Your task to perform on an android device: check data usage Image 0: 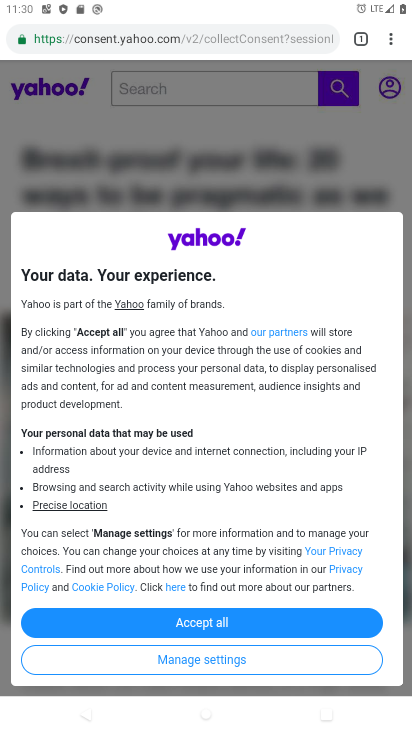
Step 0: press home button
Your task to perform on an android device: check data usage Image 1: 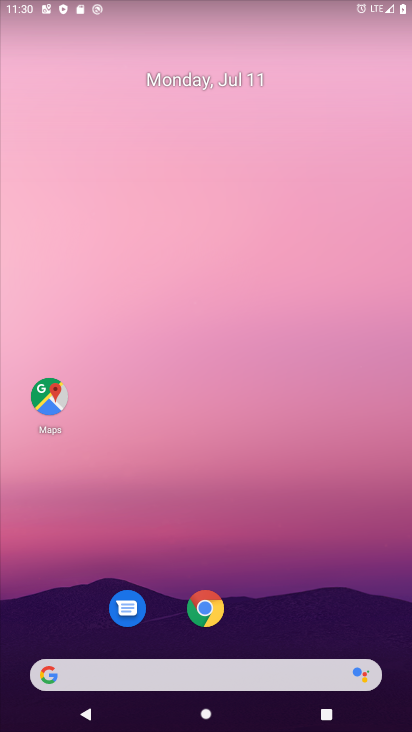
Step 1: click (115, 323)
Your task to perform on an android device: check data usage Image 2: 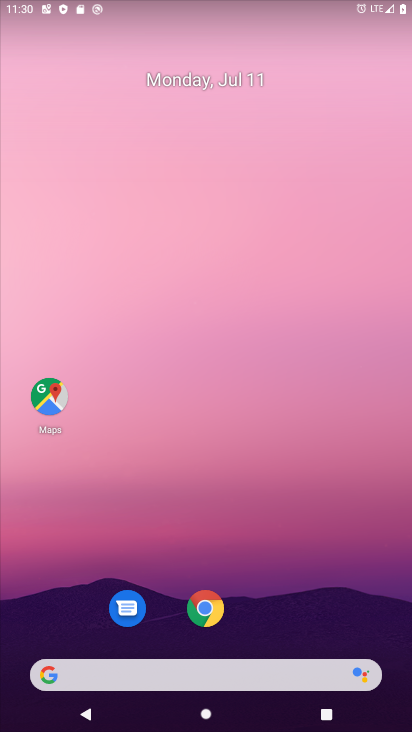
Step 2: drag from (36, 709) to (59, 207)
Your task to perform on an android device: check data usage Image 3: 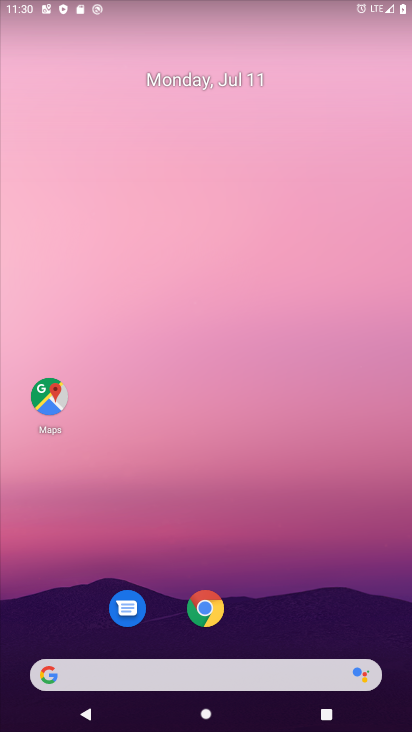
Step 3: drag from (42, 726) to (321, 4)
Your task to perform on an android device: check data usage Image 4: 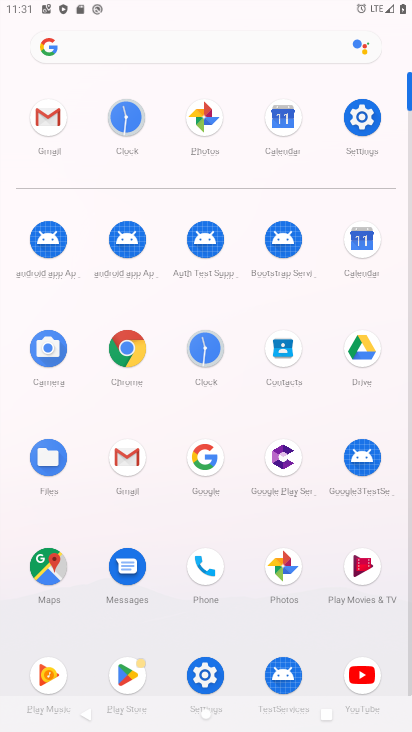
Step 4: click (190, 672)
Your task to perform on an android device: check data usage Image 5: 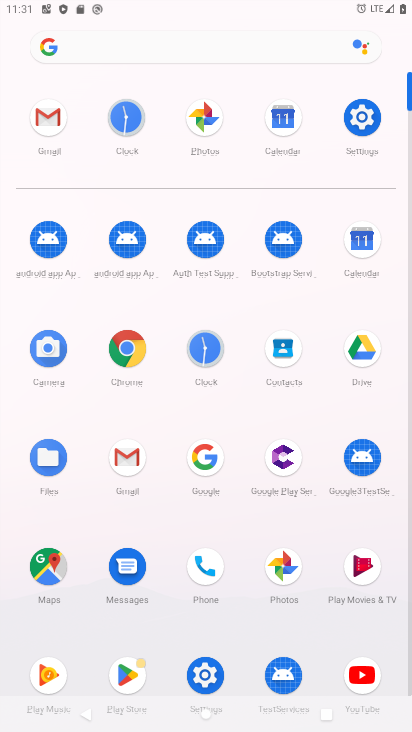
Step 5: click (190, 672)
Your task to perform on an android device: check data usage Image 6: 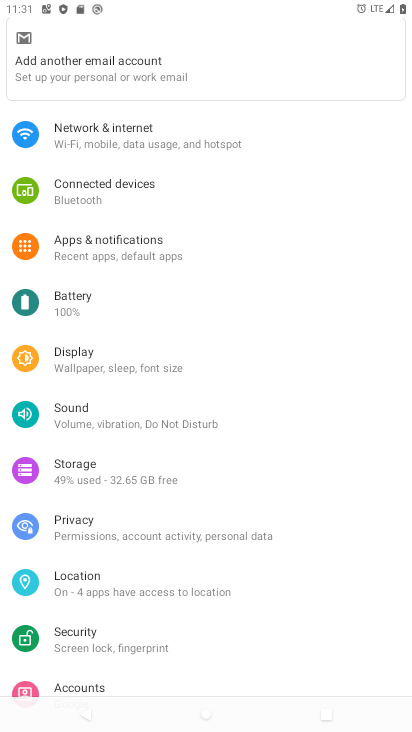
Step 6: click (98, 131)
Your task to perform on an android device: check data usage Image 7: 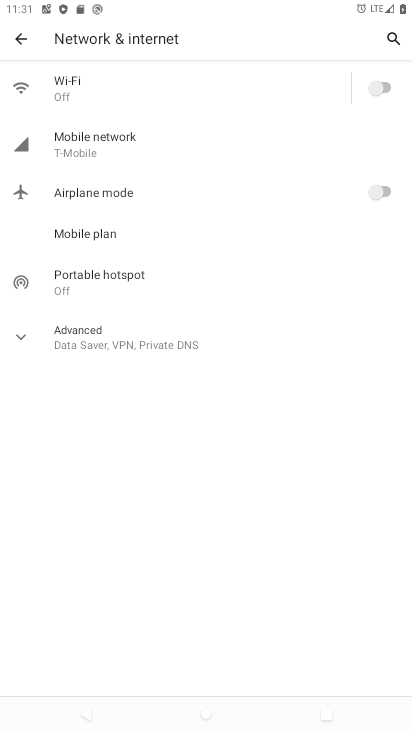
Step 7: click (74, 142)
Your task to perform on an android device: check data usage Image 8: 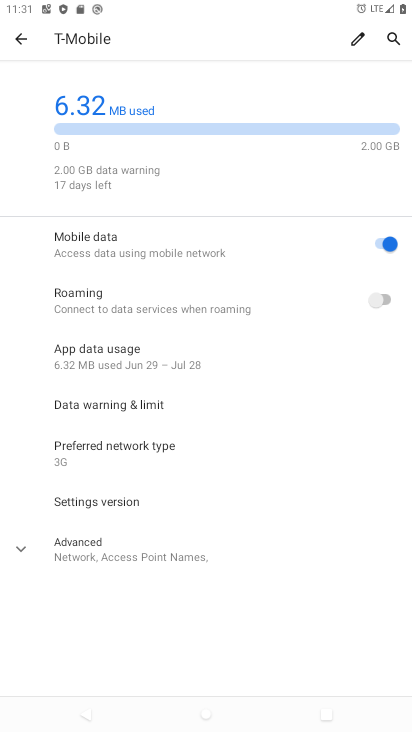
Step 8: task complete